Your task to perform on an android device: Show the shopping cart on newegg. Search for macbook air on newegg, select the first entry, and add it to the cart. Image 0: 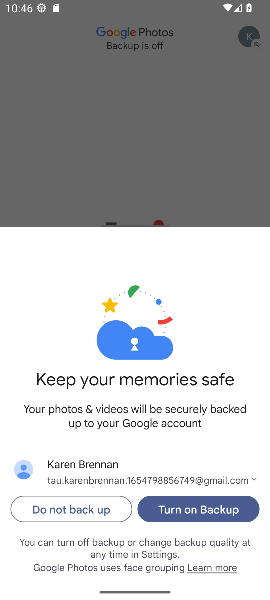
Step 0: press home button
Your task to perform on an android device: Show the shopping cart on newegg. Search for macbook air on newegg, select the first entry, and add it to the cart. Image 1: 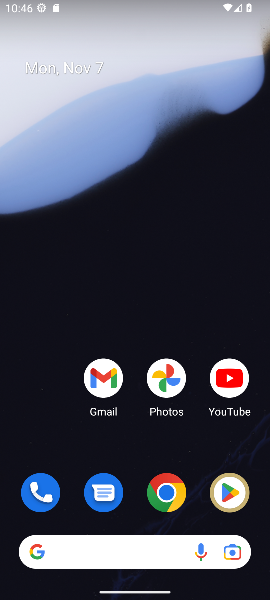
Step 1: drag from (136, 449) to (125, 118)
Your task to perform on an android device: Show the shopping cart on newegg. Search for macbook air on newegg, select the first entry, and add it to the cart. Image 2: 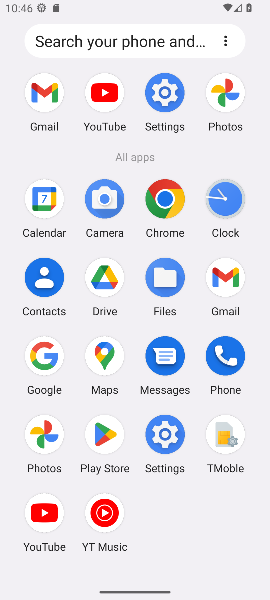
Step 2: click (160, 199)
Your task to perform on an android device: Show the shopping cart on newegg. Search for macbook air on newegg, select the first entry, and add it to the cart. Image 3: 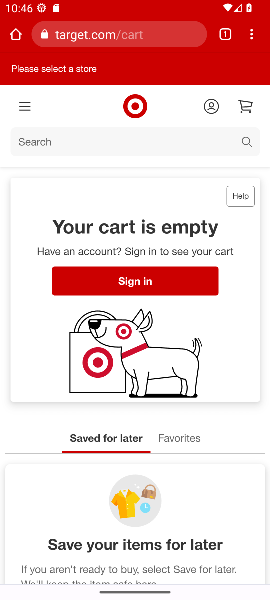
Step 3: click (133, 36)
Your task to perform on an android device: Show the shopping cart on newegg. Search for macbook air on newegg, select the first entry, and add it to the cart. Image 4: 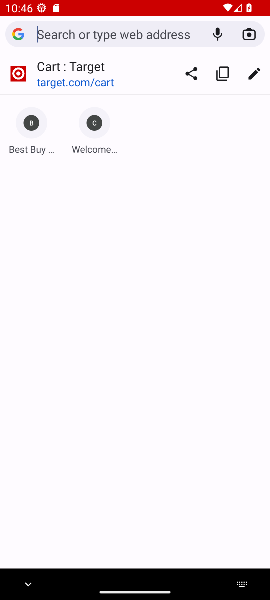
Step 4: type "newegg.com"
Your task to perform on an android device: Show the shopping cart on newegg. Search for macbook air on newegg, select the first entry, and add it to the cart. Image 5: 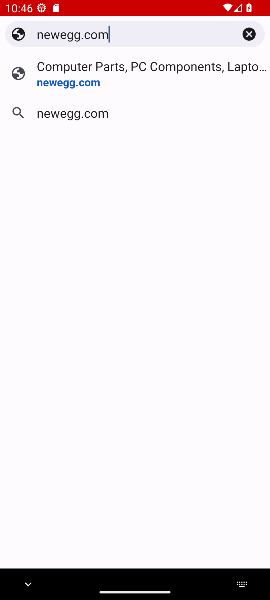
Step 5: press enter
Your task to perform on an android device: Show the shopping cart on newegg. Search for macbook air on newegg, select the first entry, and add it to the cart. Image 6: 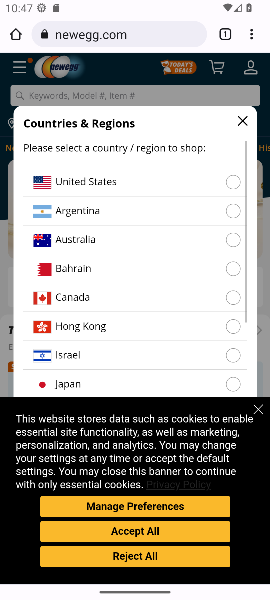
Step 6: click (246, 122)
Your task to perform on an android device: Show the shopping cart on newegg. Search for macbook air on newegg, select the first entry, and add it to the cart. Image 7: 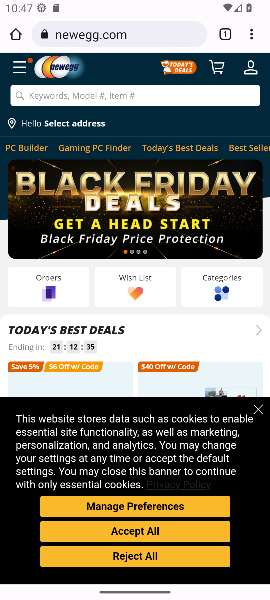
Step 7: click (214, 69)
Your task to perform on an android device: Show the shopping cart on newegg. Search for macbook air on newegg, select the first entry, and add it to the cart. Image 8: 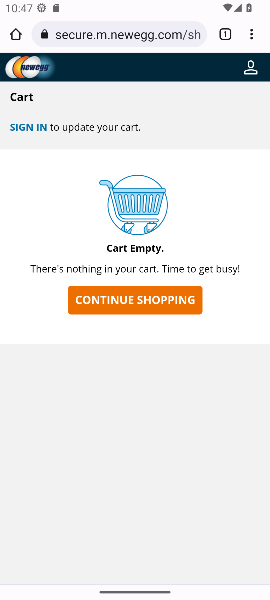
Step 8: click (168, 298)
Your task to perform on an android device: Show the shopping cart on newegg. Search for macbook air on newegg, select the first entry, and add it to the cart. Image 9: 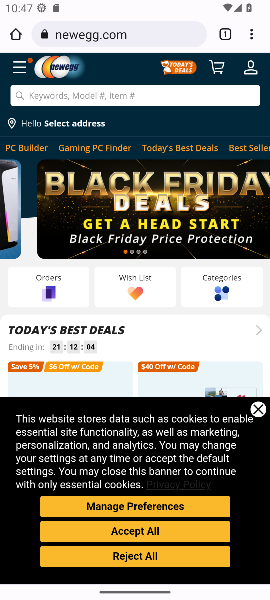
Step 9: click (178, 97)
Your task to perform on an android device: Show the shopping cart on newegg. Search for macbook air on newegg, select the first entry, and add it to the cart. Image 10: 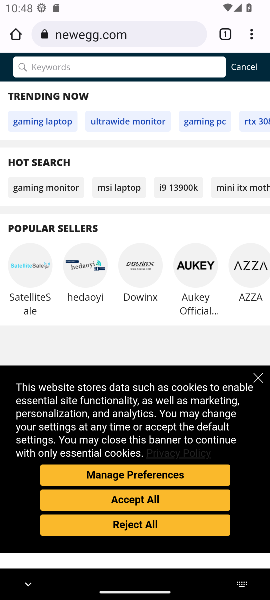
Step 10: type "macbook air"
Your task to perform on an android device: Show the shopping cart on newegg. Search for macbook air on newegg, select the first entry, and add it to the cart. Image 11: 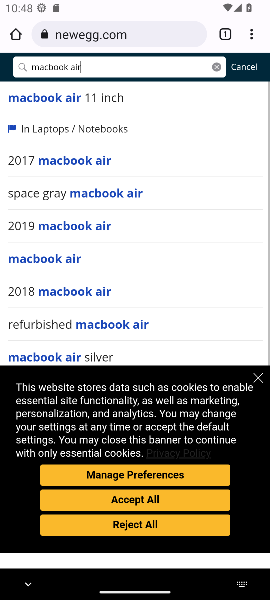
Step 11: press enter
Your task to perform on an android device: Show the shopping cart on newegg. Search for macbook air on newegg, select the first entry, and add it to the cart. Image 12: 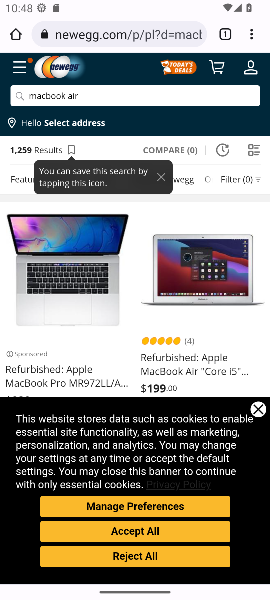
Step 12: click (181, 534)
Your task to perform on an android device: Show the shopping cart on newegg. Search for macbook air on newegg, select the first entry, and add it to the cart. Image 13: 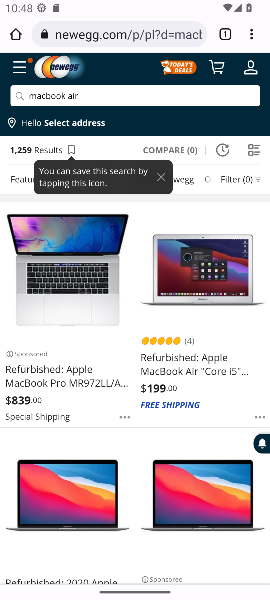
Step 13: drag from (215, 388) to (208, 249)
Your task to perform on an android device: Show the shopping cart on newegg. Search for macbook air on newegg, select the first entry, and add it to the cart. Image 14: 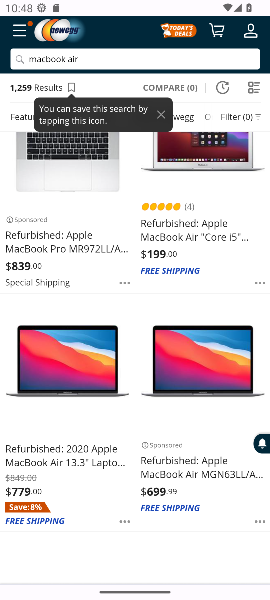
Step 14: click (175, 234)
Your task to perform on an android device: Show the shopping cart on newegg. Search for macbook air on newegg, select the first entry, and add it to the cart. Image 15: 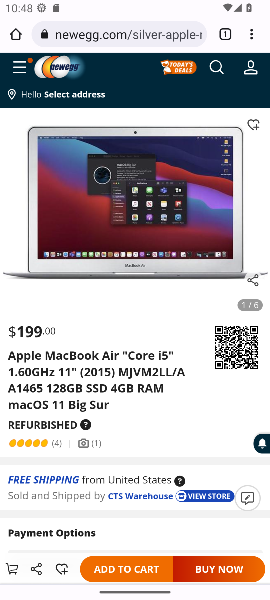
Step 15: click (119, 568)
Your task to perform on an android device: Show the shopping cart on newegg. Search for macbook air on newegg, select the first entry, and add it to the cart. Image 16: 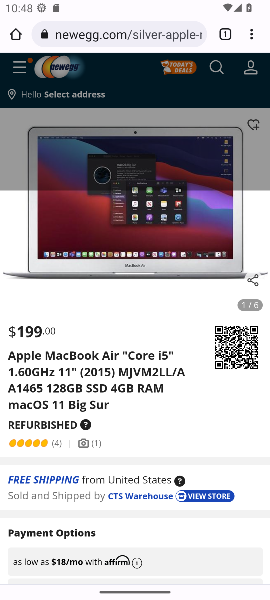
Step 16: task complete